Your task to perform on an android device: Go to accessibility settings Image 0: 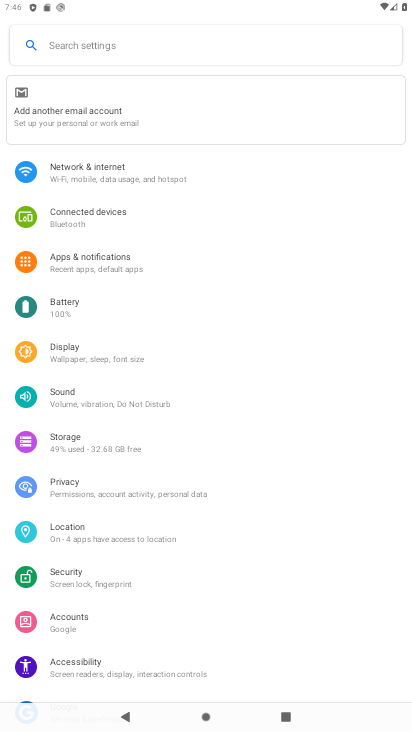
Step 0: click (103, 650)
Your task to perform on an android device: Go to accessibility settings Image 1: 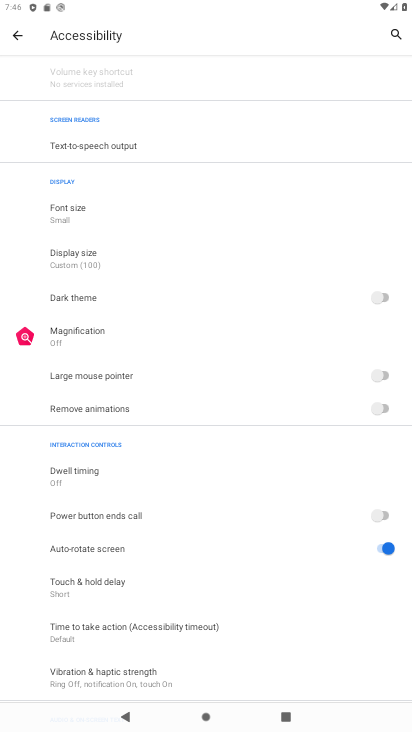
Step 1: task complete